Your task to perform on an android device: toggle javascript in the chrome app Image 0: 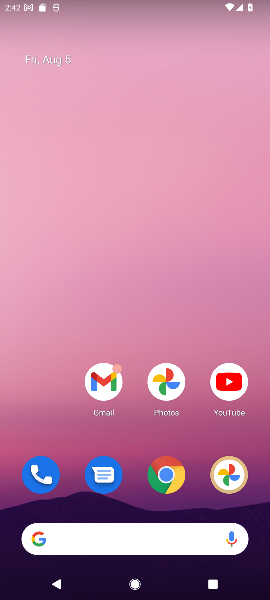
Step 0: click (173, 476)
Your task to perform on an android device: toggle javascript in the chrome app Image 1: 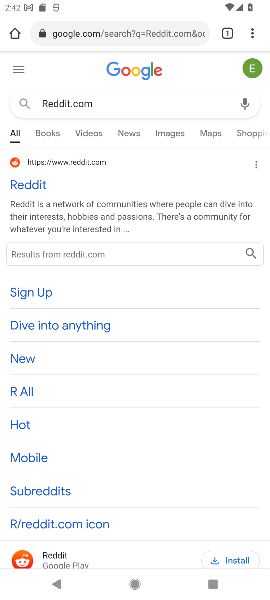
Step 1: click (248, 35)
Your task to perform on an android device: toggle javascript in the chrome app Image 2: 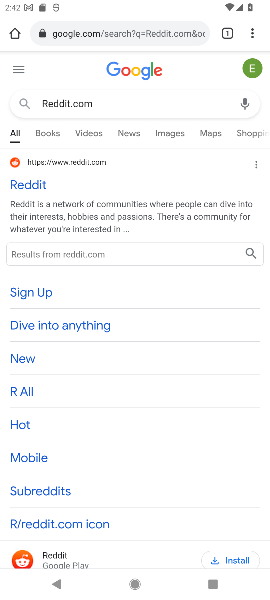
Step 2: click (255, 28)
Your task to perform on an android device: toggle javascript in the chrome app Image 3: 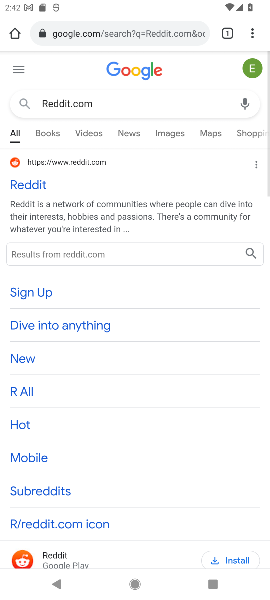
Step 3: click (255, 28)
Your task to perform on an android device: toggle javascript in the chrome app Image 4: 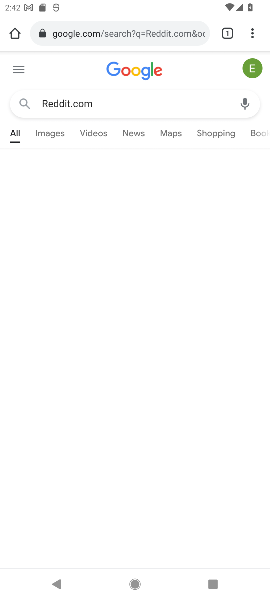
Step 4: click (255, 28)
Your task to perform on an android device: toggle javascript in the chrome app Image 5: 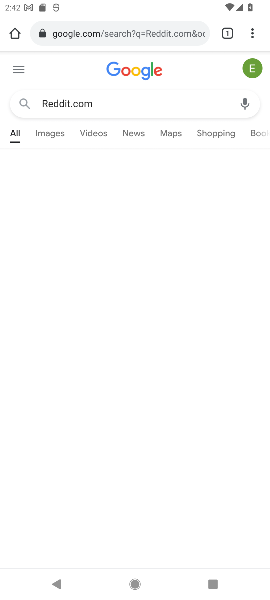
Step 5: click (255, 28)
Your task to perform on an android device: toggle javascript in the chrome app Image 6: 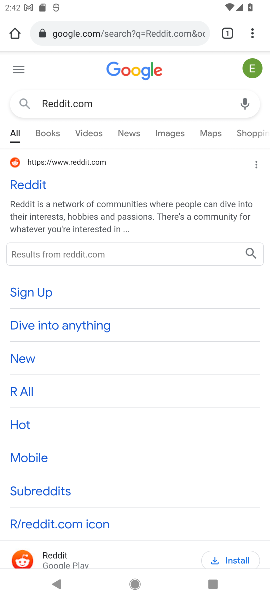
Step 6: click (255, 28)
Your task to perform on an android device: toggle javascript in the chrome app Image 7: 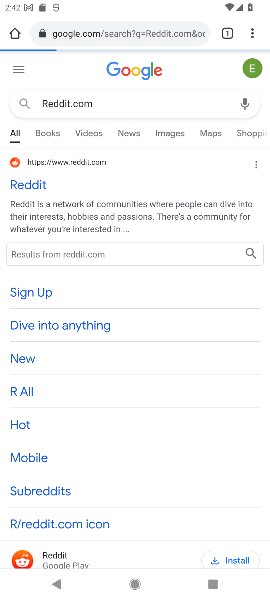
Step 7: click (254, 32)
Your task to perform on an android device: toggle javascript in the chrome app Image 8: 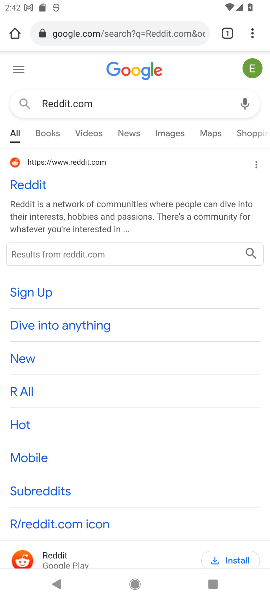
Step 8: click (254, 32)
Your task to perform on an android device: toggle javascript in the chrome app Image 9: 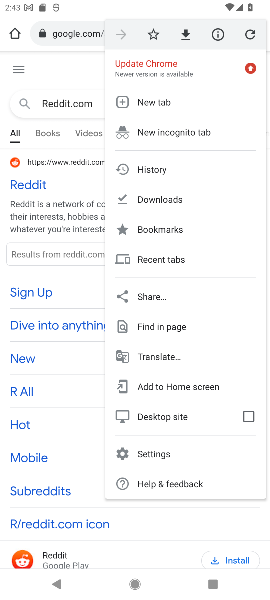
Step 9: click (139, 451)
Your task to perform on an android device: toggle javascript in the chrome app Image 10: 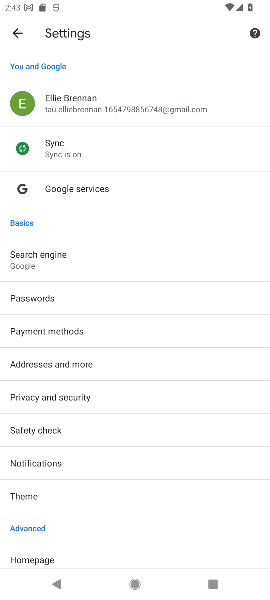
Step 10: drag from (173, 543) to (44, 218)
Your task to perform on an android device: toggle javascript in the chrome app Image 11: 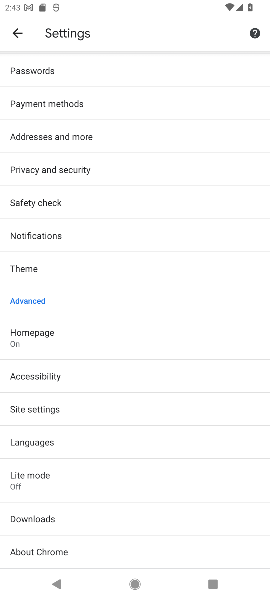
Step 11: click (102, 406)
Your task to perform on an android device: toggle javascript in the chrome app Image 12: 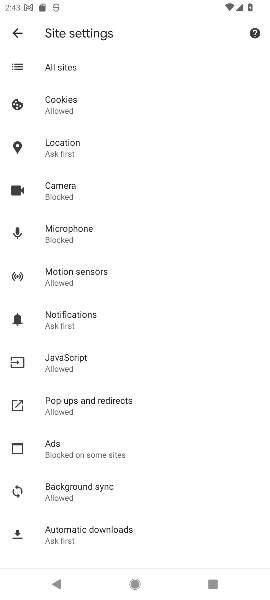
Step 12: click (66, 350)
Your task to perform on an android device: toggle javascript in the chrome app Image 13: 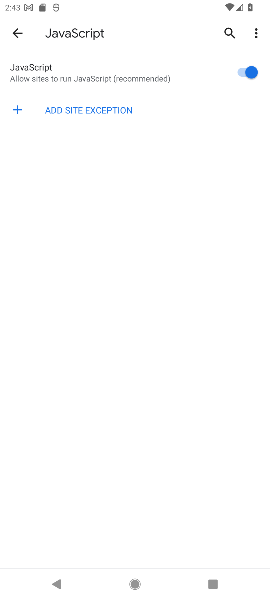
Step 13: click (246, 65)
Your task to perform on an android device: toggle javascript in the chrome app Image 14: 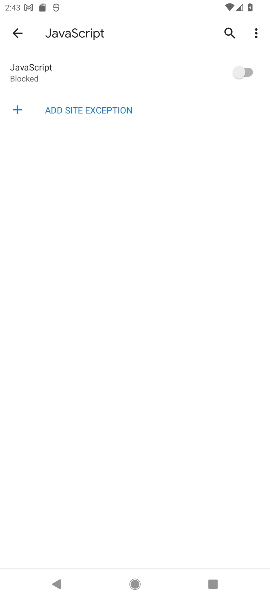
Step 14: task complete